Your task to perform on an android device: turn on wifi Image 0: 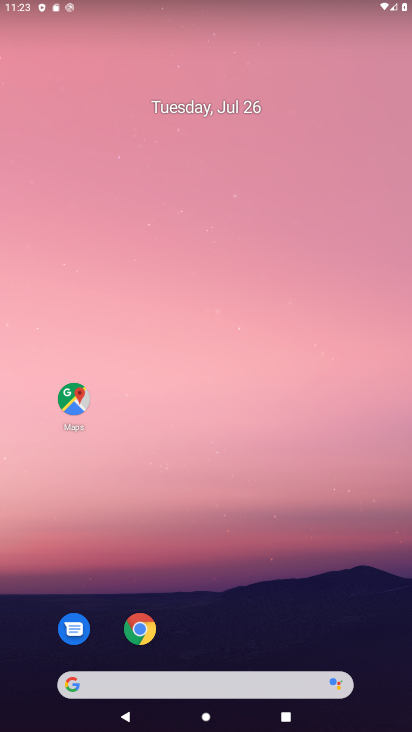
Step 0: drag from (225, 721) to (281, 215)
Your task to perform on an android device: turn on wifi Image 1: 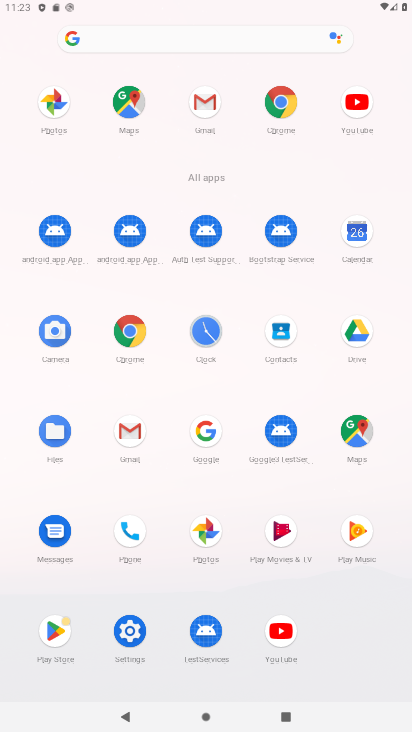
Step 1: click (128, 633)
Your task to perform on an android device: turn on wifi Image 2: 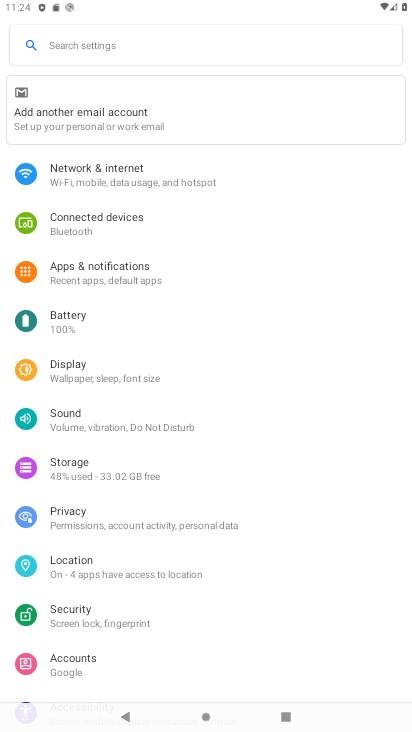
Step 2: click (77, 174)
Your task to perform on an android device: turn on wifi Image 3: 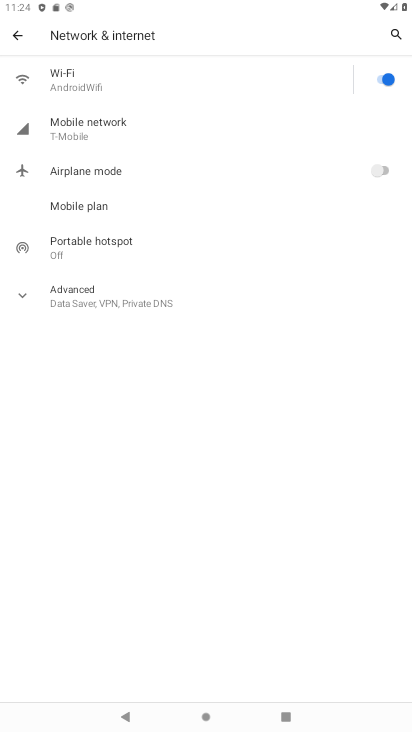
Step 3: task complete